Your task to perform on an android device: add a contact Image 0: 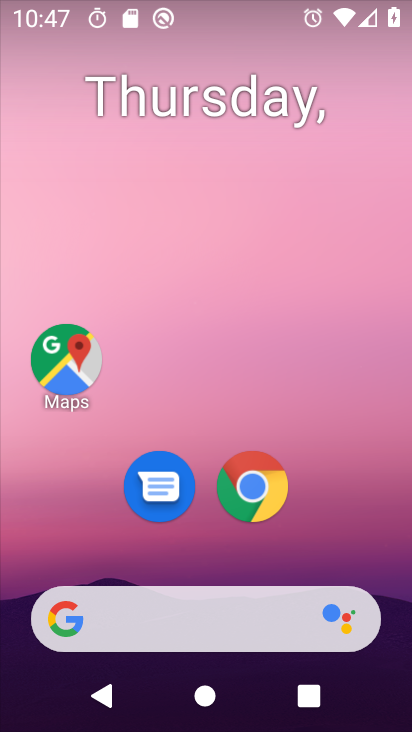
Step 0: drag from (393, 600) to (360, 121)
Your task to perform on an android device: add a contact Image 1: 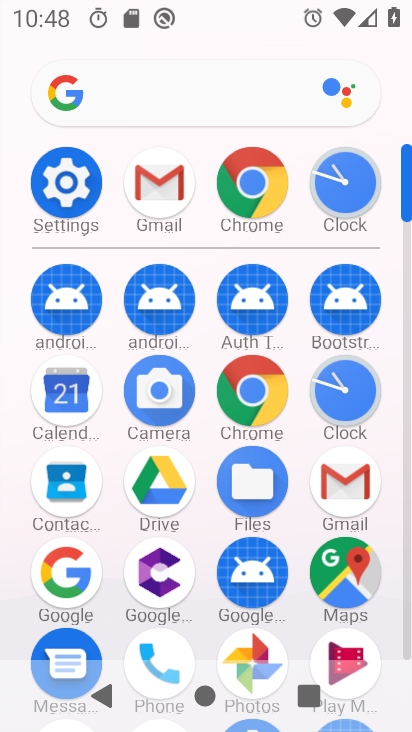
Step 1: click (64, 495)
Your task to perform on an android device: add a contact Image 2: 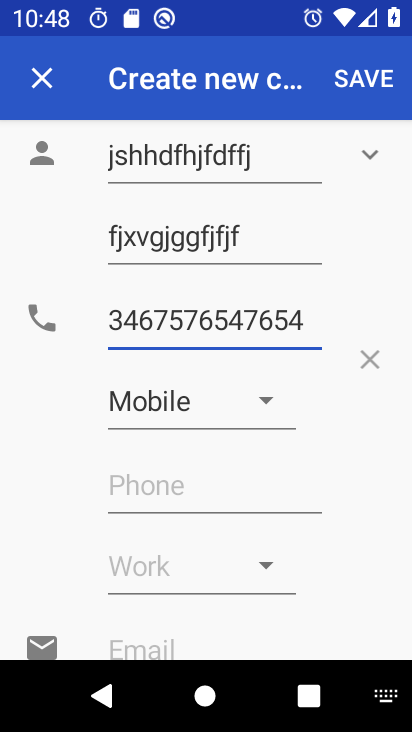
Step 2: click (372, 73)
Your task to perform on an android device: add a contact Image 3: 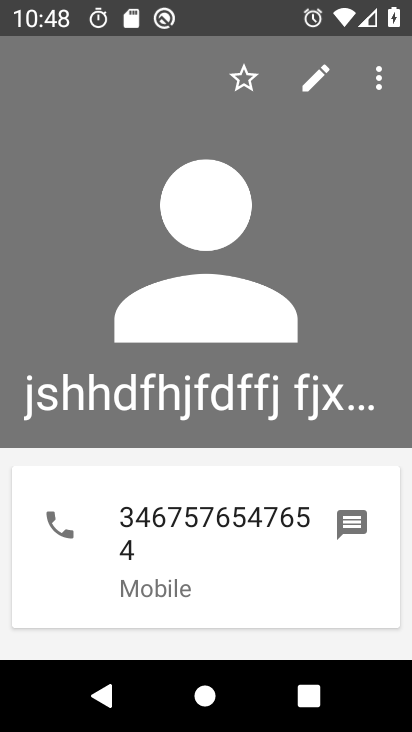
Step 3: press back button
Your task to perform on an android device: add a contact Image 4: 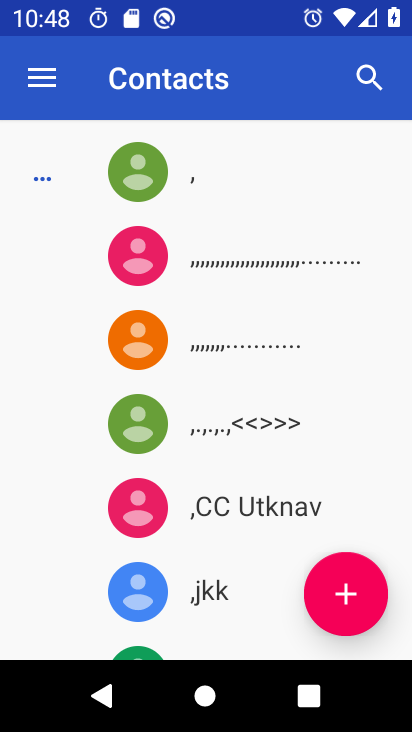
Step 4: click (345, 612)
Your task to perform on an android device: add a contact Image 5: 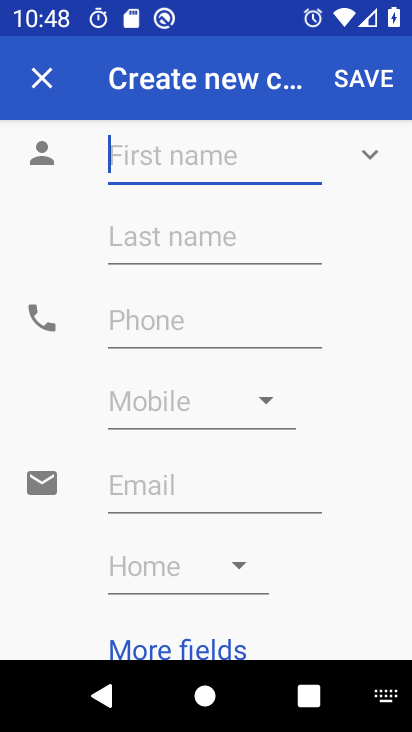
Step 5: type "bfdbfhbfhfb"
Your task to perform on an android device: add a contact Image 6: 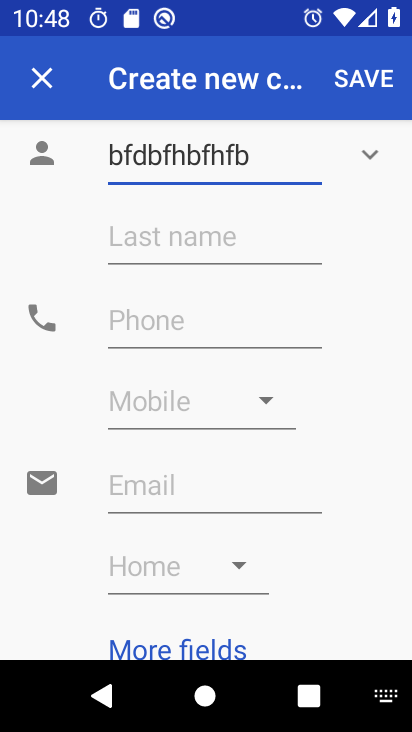
Step 6: click (210, 232)
Your task to perform on an android device: add a contact Image 7: 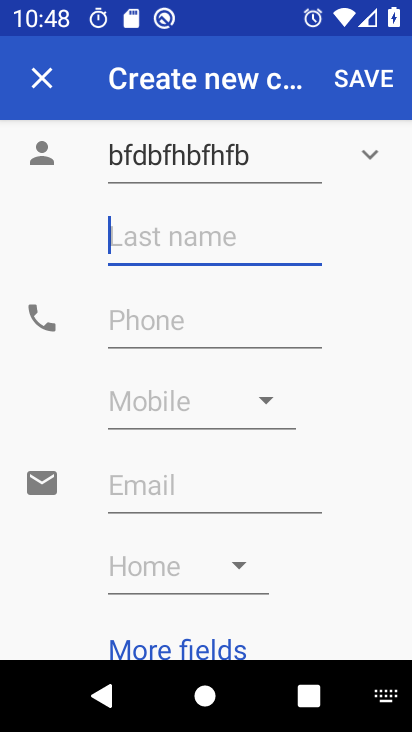
Step 7: type "ghkaghkgahhg"
Your task to perform on an android device: add a contact Image 8: 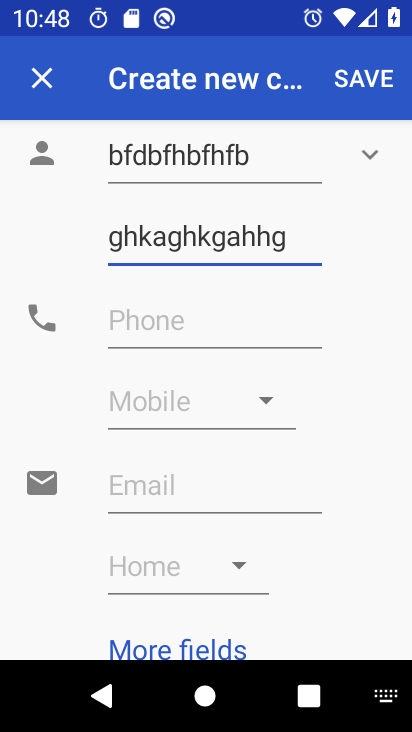
Step 8: click (215, 318)
Your task to perform on an android device: add a contact Image 9: 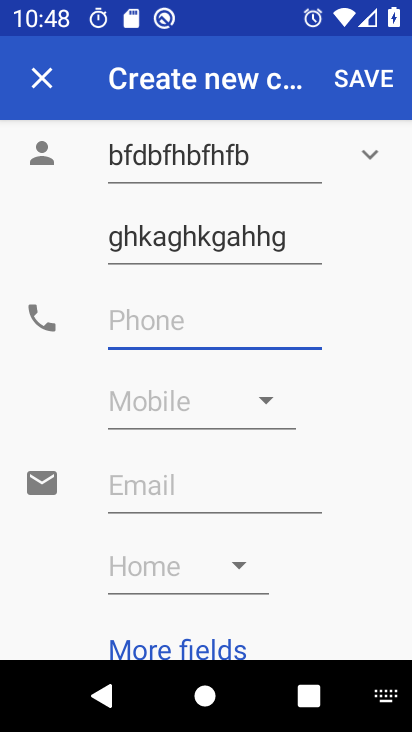
Step 9: type "457457747575"
Your task to perform on an android device: add a contact Image 10: 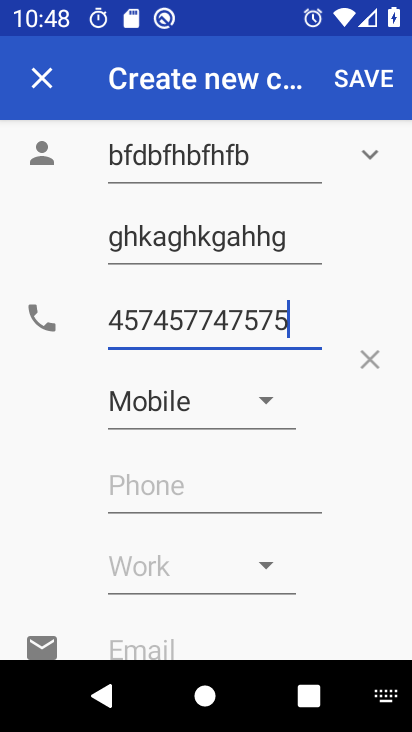
Step 10: click (374, 81)
Your task to perform on an android device: add a contact Image 11: 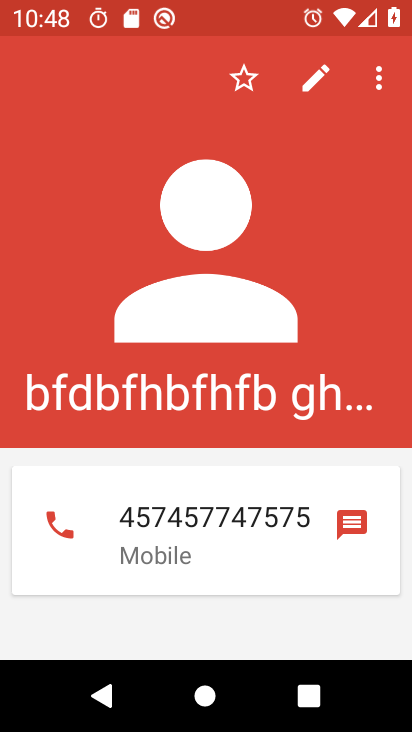
Step 11: task complete